Your task to perform on an android device: open device folders in google photos Image 0: 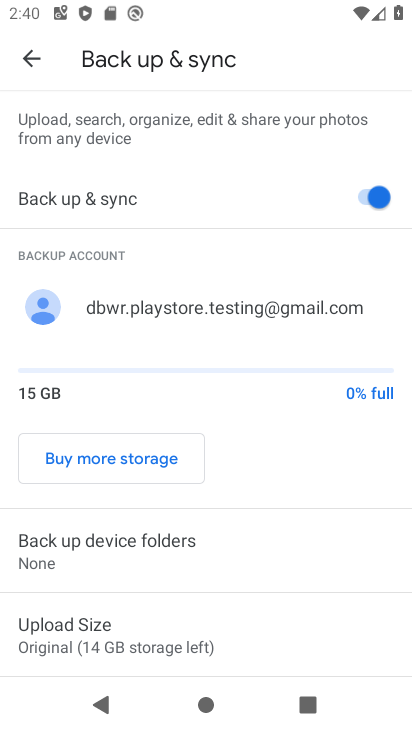
Step 0: press back button
Your task to perform on an android device: open device folders in google photos Image 1: 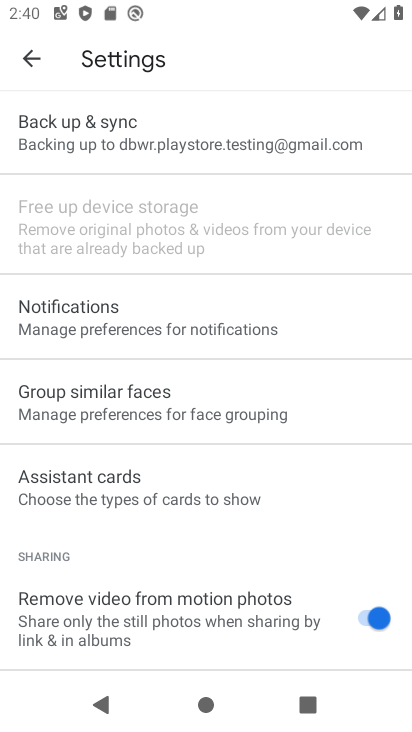
Step 1: press back button
Your task to perform on an android device: open device folders in google photos Image 2: 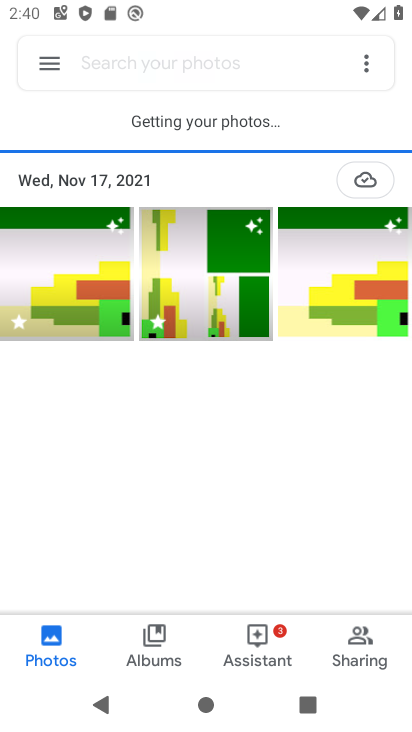
Step 2: click (61, 58)
Your task to perform on an android device: open device folders in google photos Image 3: 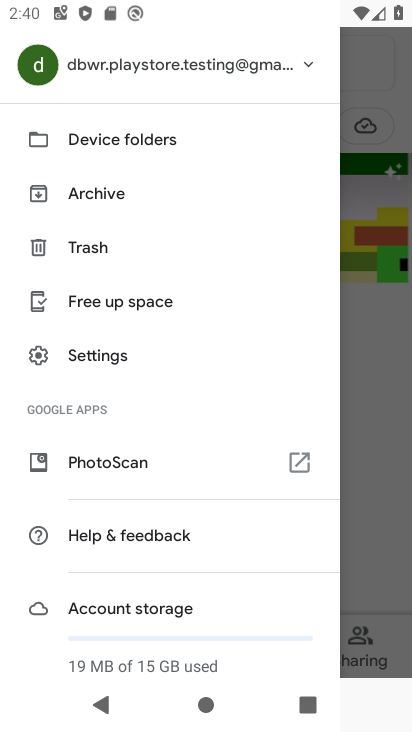
Step 3: click (96, 141)
Your task to perform on an android device: open device folders in google photos Image 4: 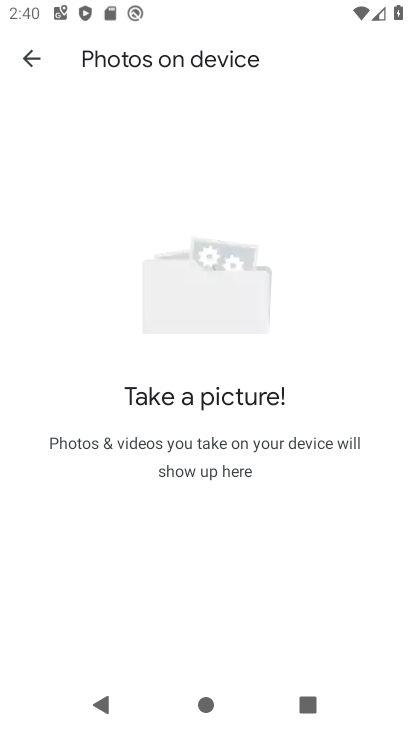
Step 4: task complete